Your task to perform on an android device: Play the last video I watched on Youtube Image 0: 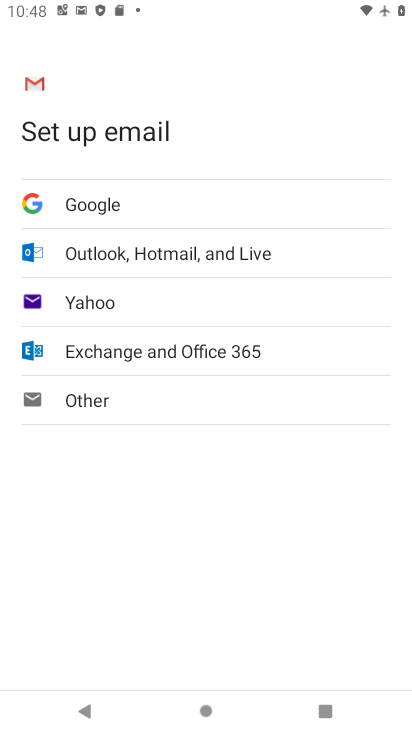
Step 0: press home button
Your task to perform on an android device: Play the last video I watched on Youtube Image 1: 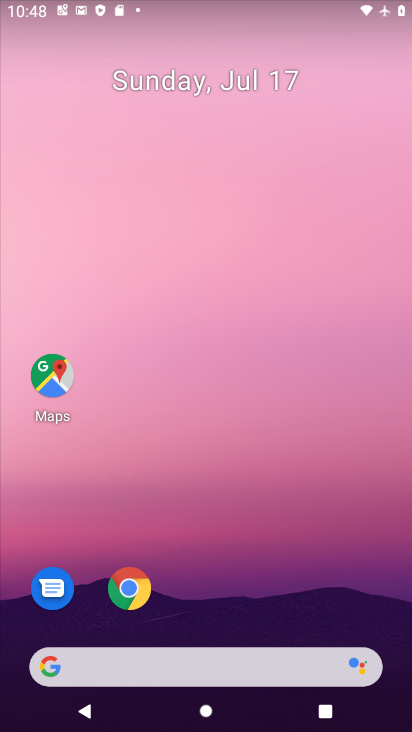
Step 1: drag from (309, 615) to (295, 497)
Your task to perform on an android device: Play the last video I watched on Youtube Image 2: 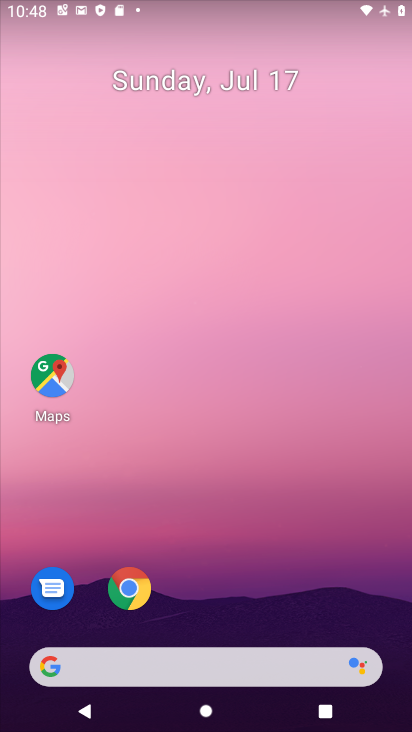
Step 2: drag from (288, 716) to (176, 56)
Your task to perform on an android device: Play the last video I watched on Youtube Image 3: 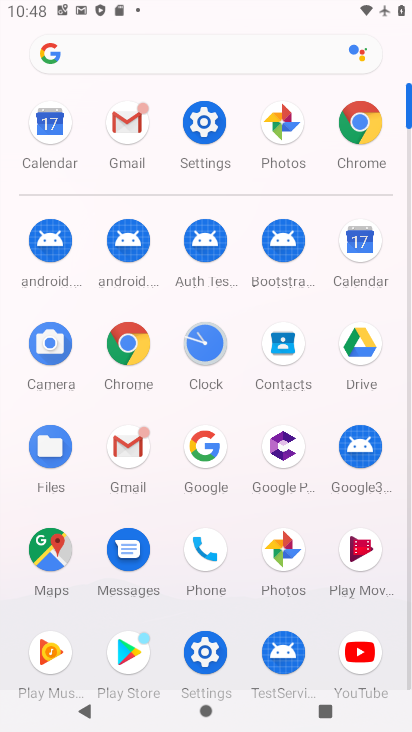
Step 3: click (353, 649)
Your task to perform on an android device: Play the last video I watched on Youtube Image 4: 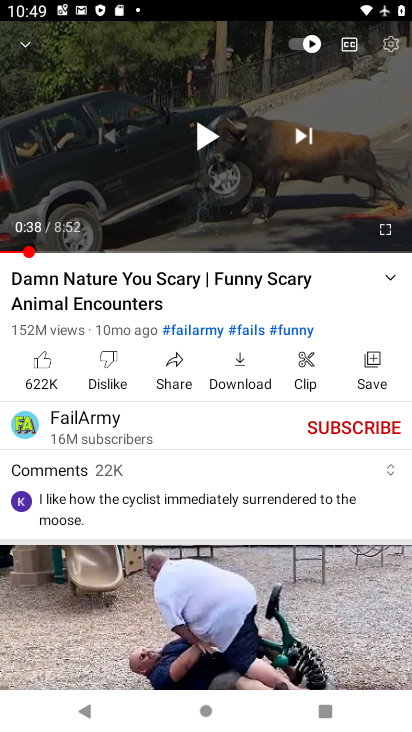
Step 4: click (233, 147)
Your task to perform on an android device: Play the last video I watched on Youtube Image 5: 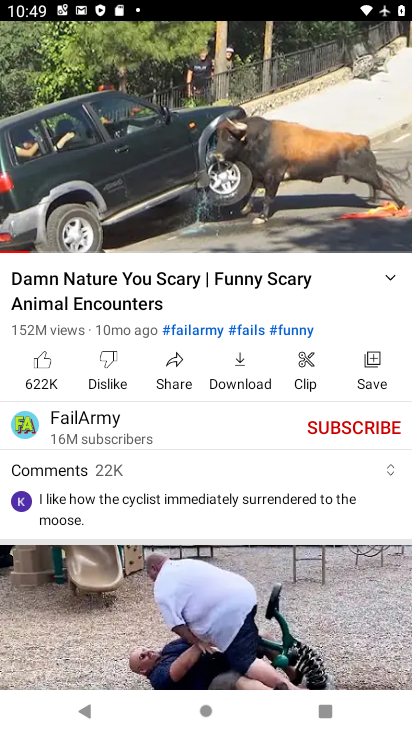
Step 5: click (252, 169)
Your task to perform on an android device: Play the last video I watched on Youtube Image 6: 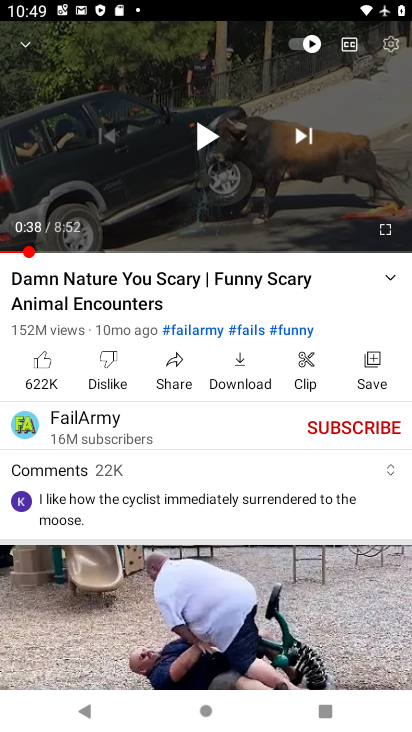
Step 6: click (210, 135)
Your task to perform on an android device: Play the last video I watched on Youtube Image 7: 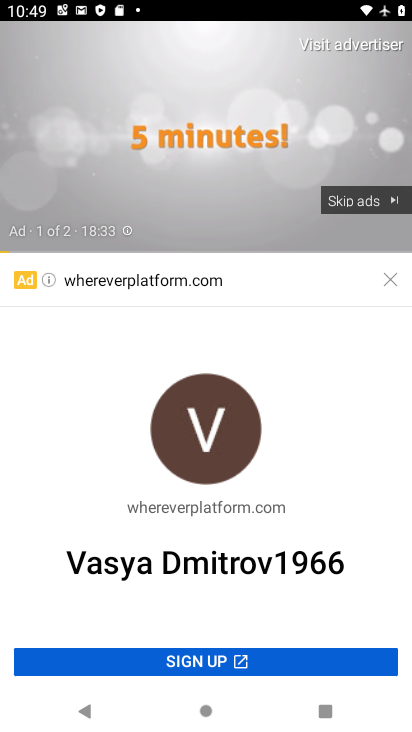
Step 7: click (393, 204)
Your task to perform on an android device: Play the last video I watched on Youtube Image 8: 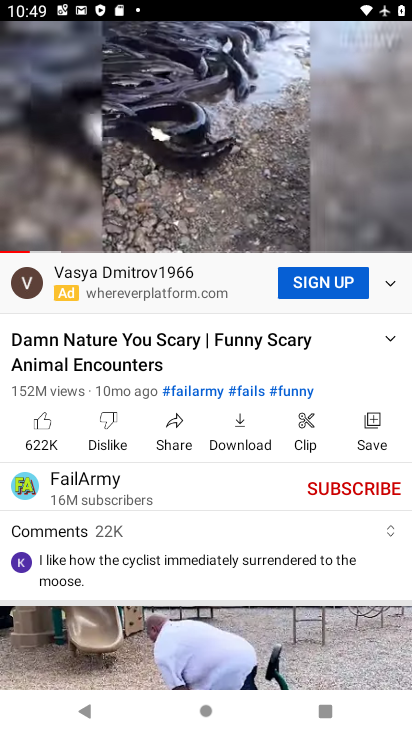
Step 8: task complete